Your task to perform on an android device: Open Google Maps and go to "Timeline" Image 0: 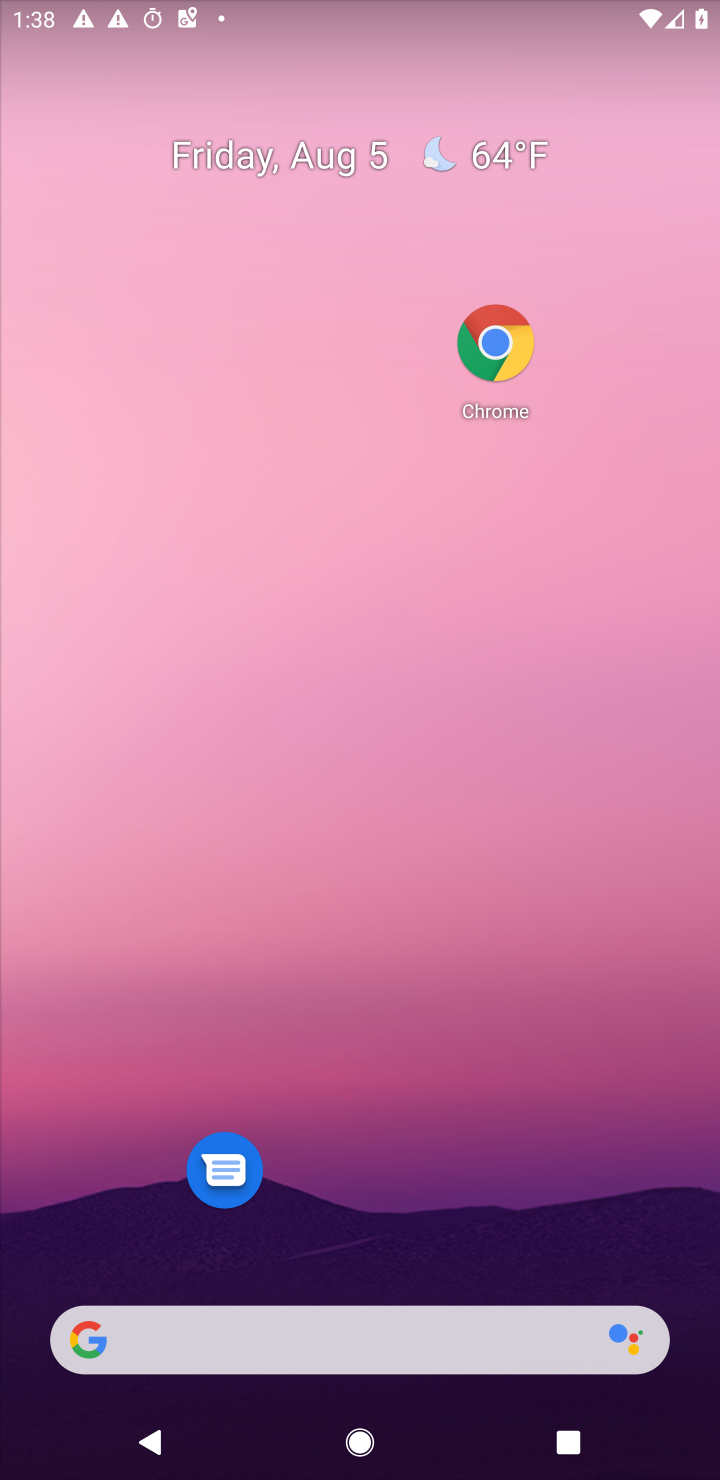
Step 0: drag from (342, 1201) to (348, 177)
Your task to perform on an android device: Open Google Maps and go to "Timeline" Image 1: 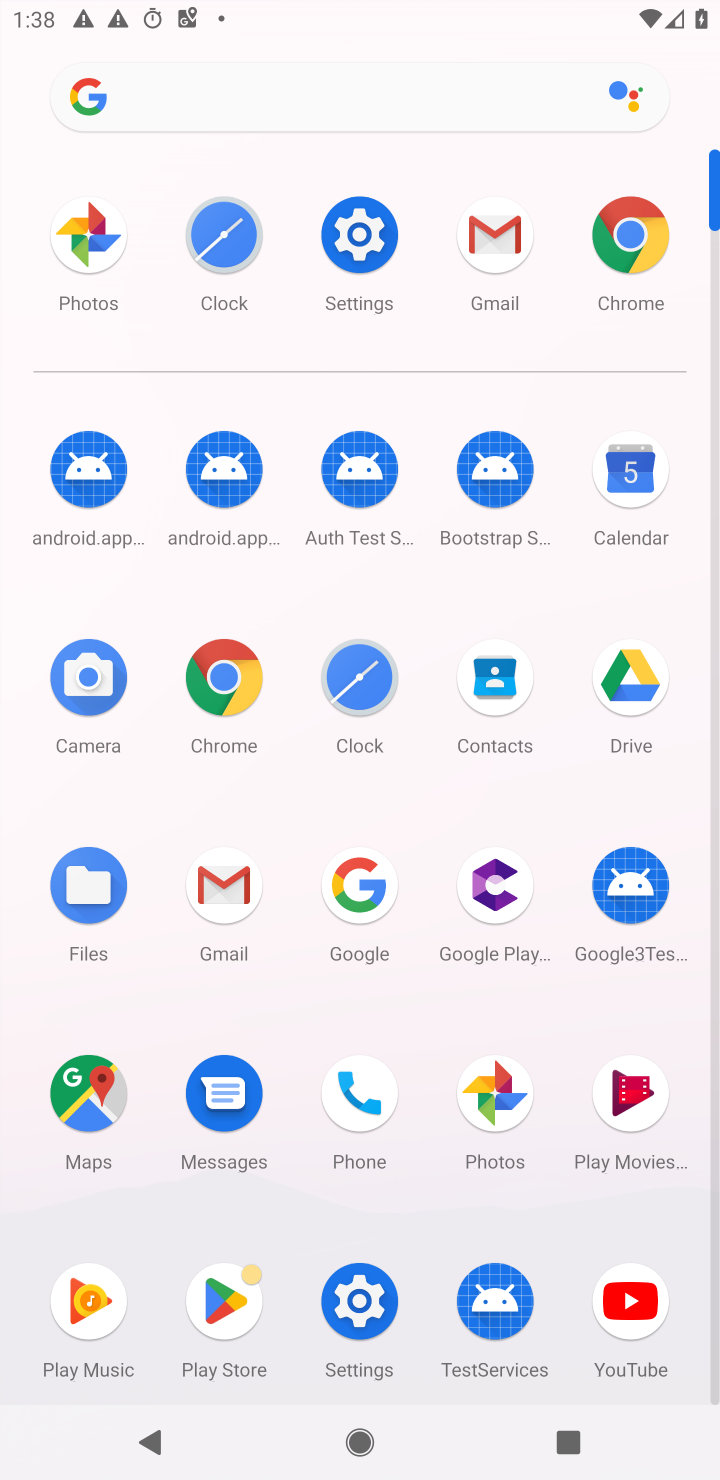
Step 1: click (105, 1109)
Your task to perform on an android device: Open Google Maps and go to "Timeline" Image 2: 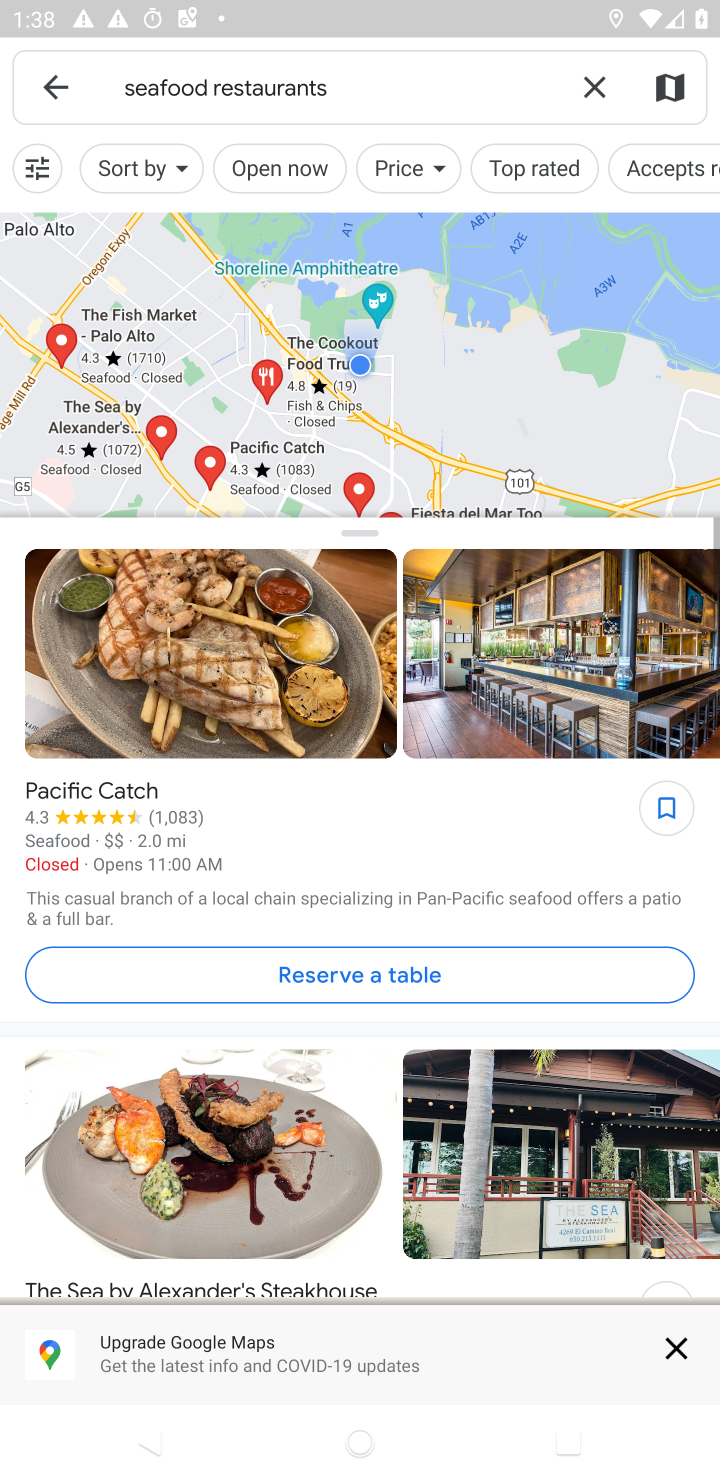
Step 2: press back button
Your task to perform on an android device: Open Google Maps and go to "Timeline" Image 3: 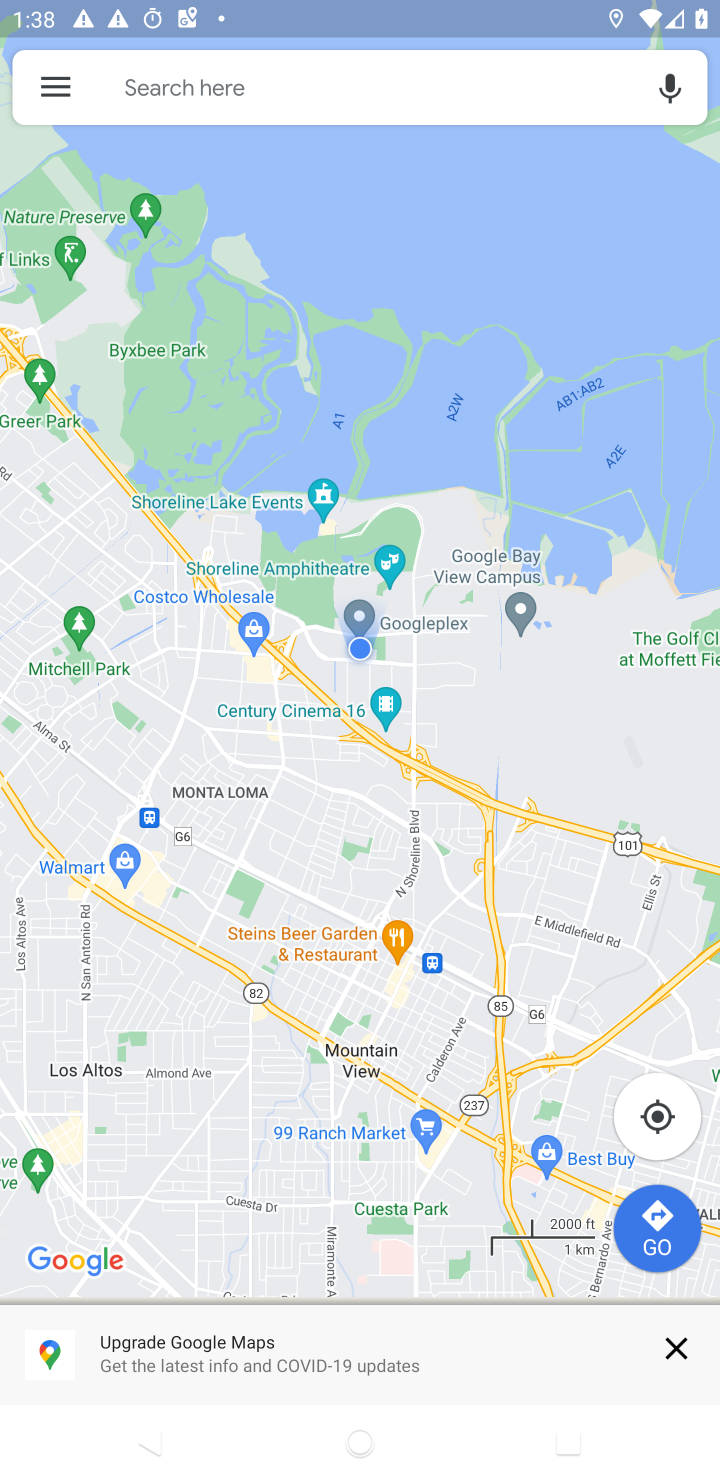
Step 3: click (39, 93)
Your task to perform on an android device: Open Google Maps and go to "Timeline" Image 4: 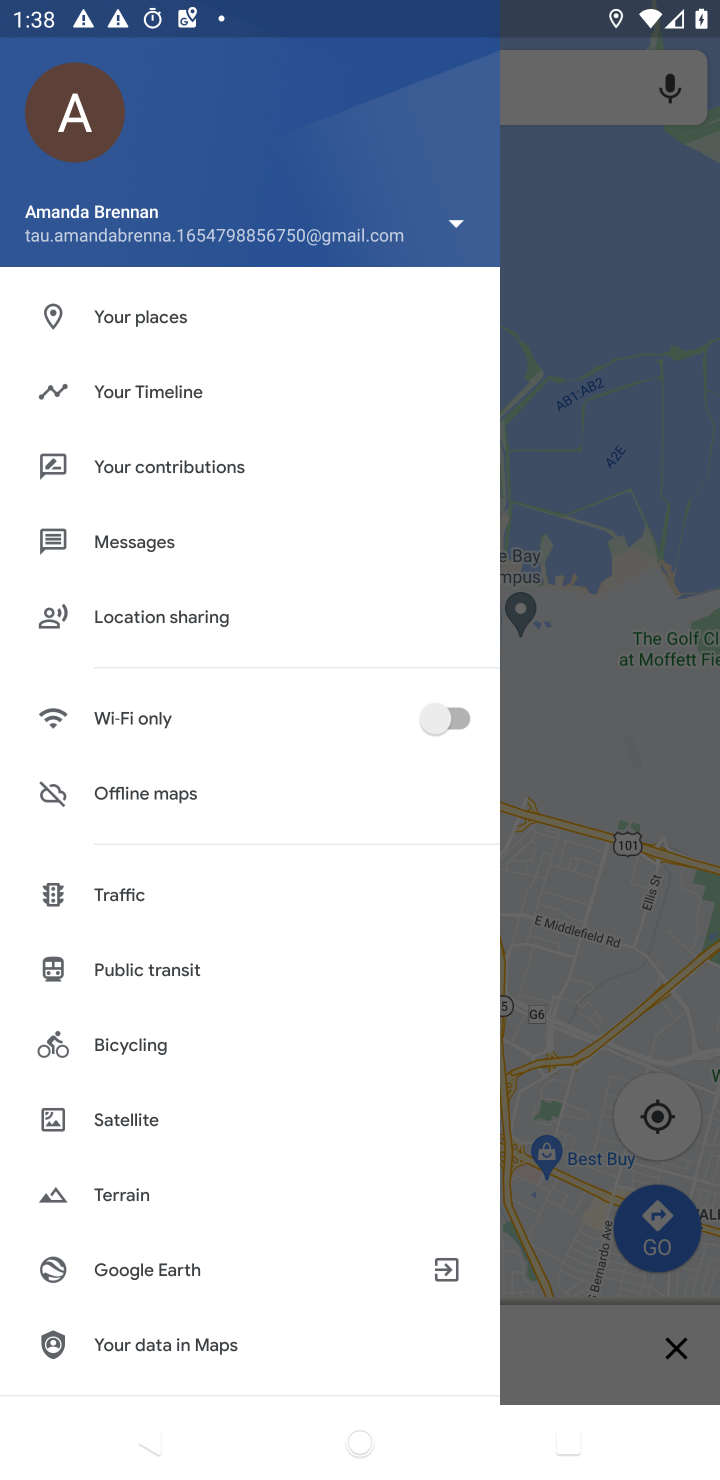
Step 4: click (206, 389)
Your task to perform on an android device: Open Google Maps and go to "Timeline" Image 5: 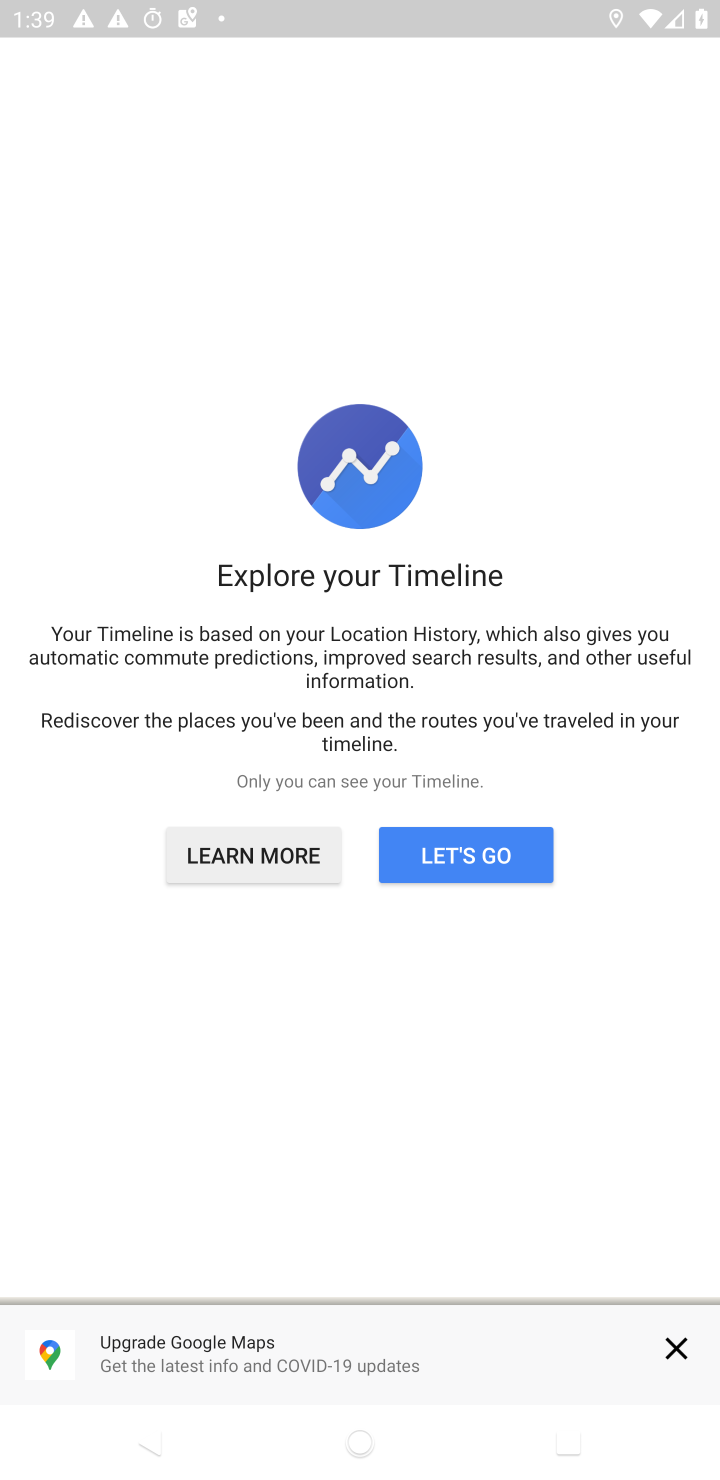
Step 5: click (677, 1348)
Your task to perform on an android device: Open Google Maps and go to "Timeline" Image 6: 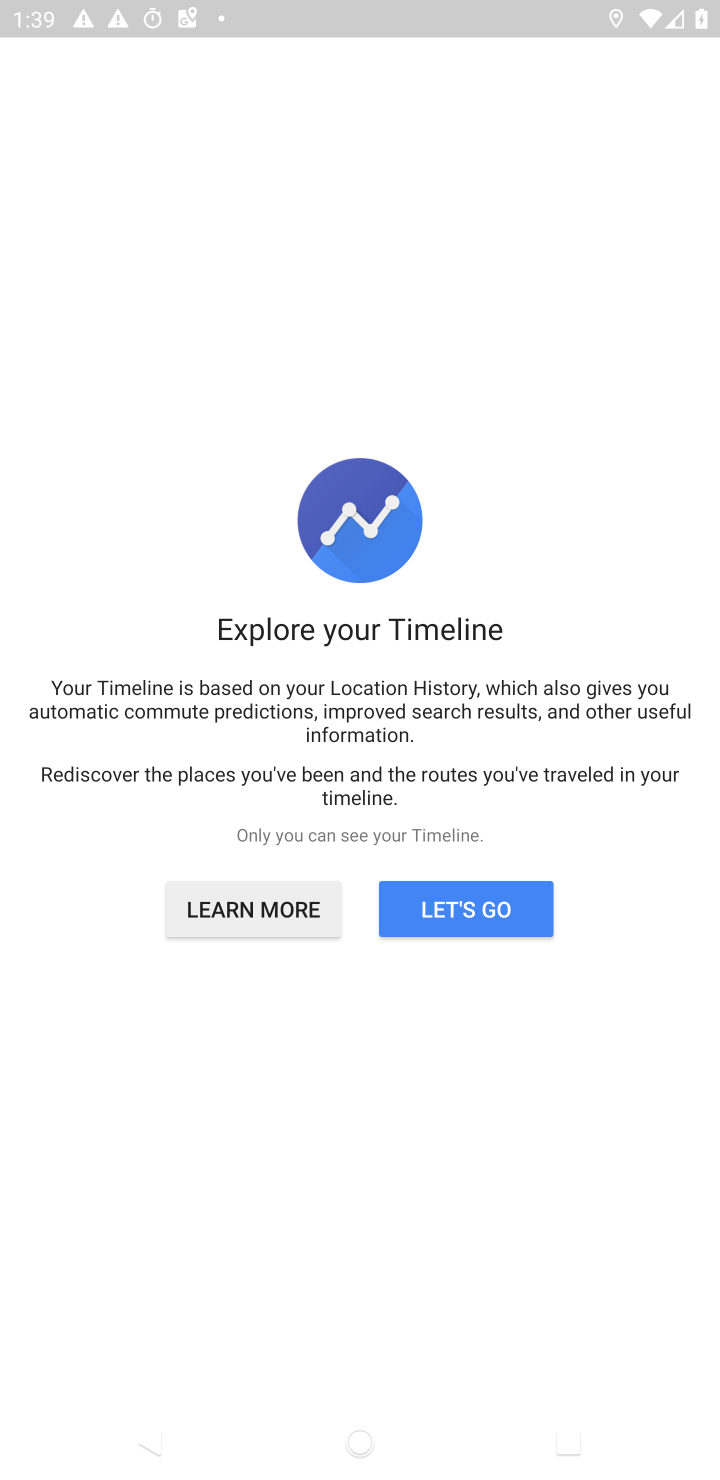
Step 6: click (485, 902)
Your task to perform on an android device: Open Google Maps and go to "Timeline" Image 7: 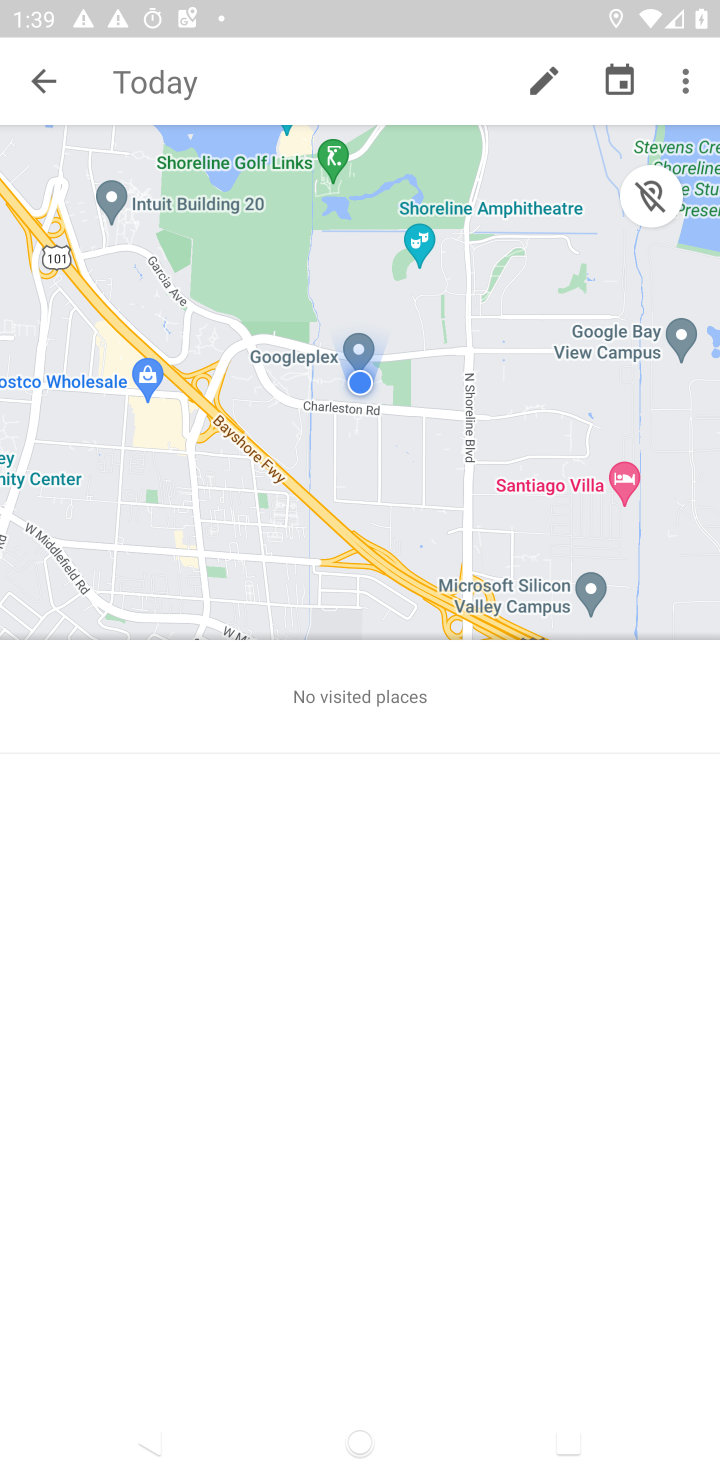
Step 7: task complete